Your task to perform on an android device: toggle priority inbox in the gmail app Image 0: 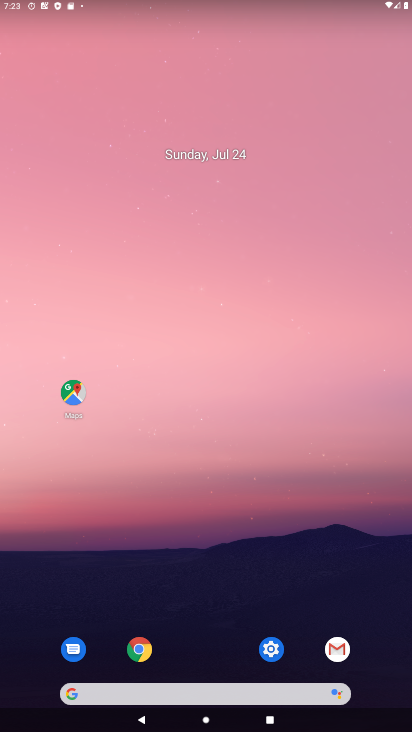
Step 0: click (346, 653)
Your task to perform on an android device: toggle priority inbox in the gmail app Image 1: 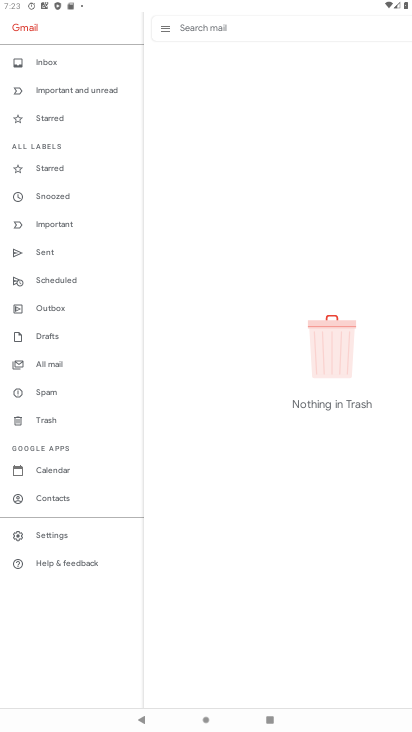
Step 1: click (78, 534)
Your task to perform on an android device: toggle priority inbox in the gmail app Image 2: 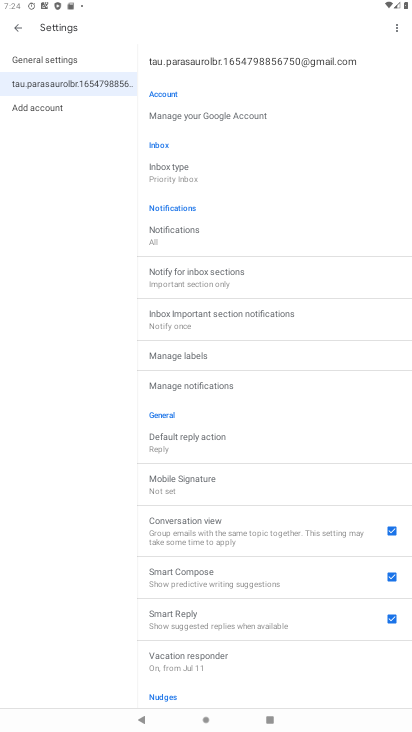
Step 2: click (176, 170)
Your task to perform on an android device: toggle priority inbox in the gmail app Image 3: 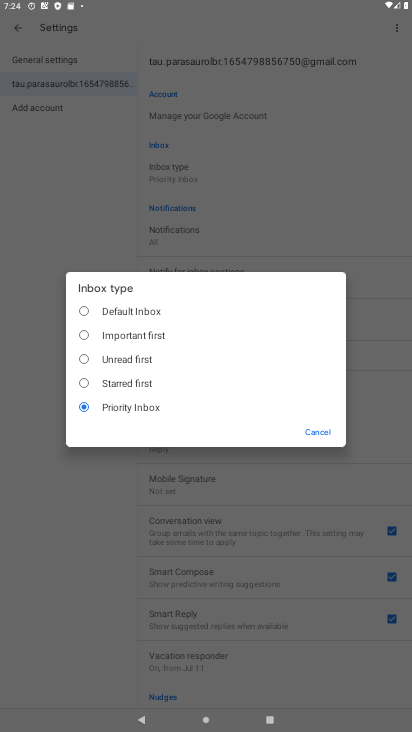
Step 3: task complete